Your task to perform on an android device: toggle notification dots Image 0: 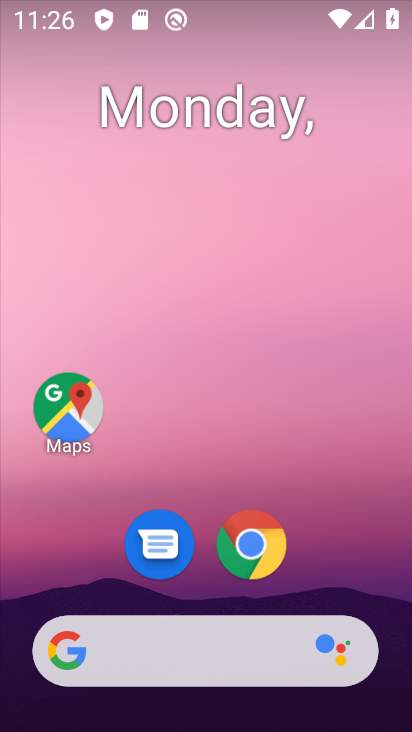
Step 0: drag from (317, 517) to (306, 187)
Your task to perform on an android device: toggle notification dots Image 1: 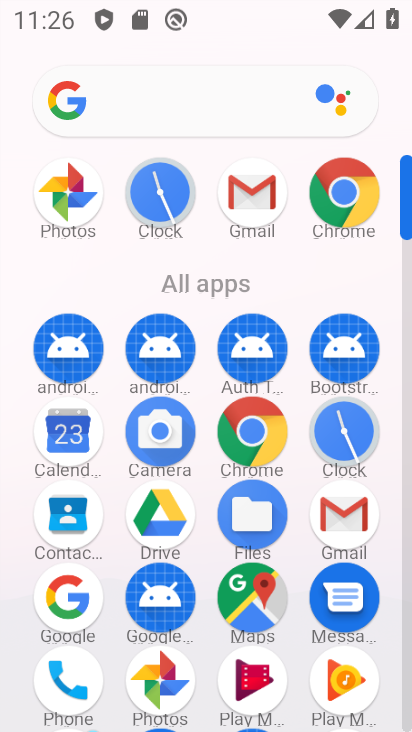
Step 1: drag from (197, 614) to (186, 267)
Your task to perform on an android device: toggle notification dots Image 2: 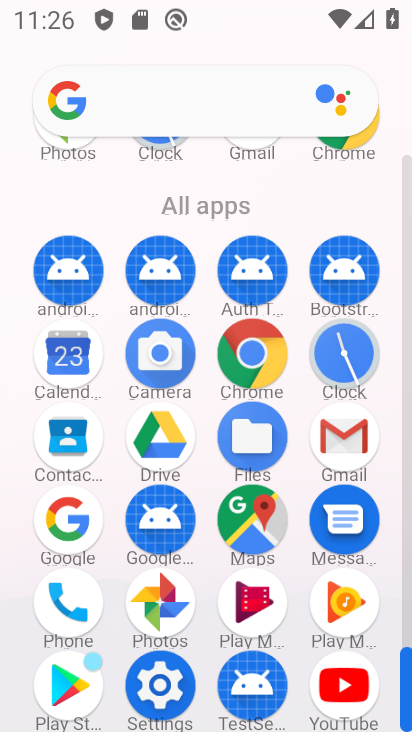
Step 2: click (154, 705)
Your task to perform on an android device: toggle notification dots Image 3: 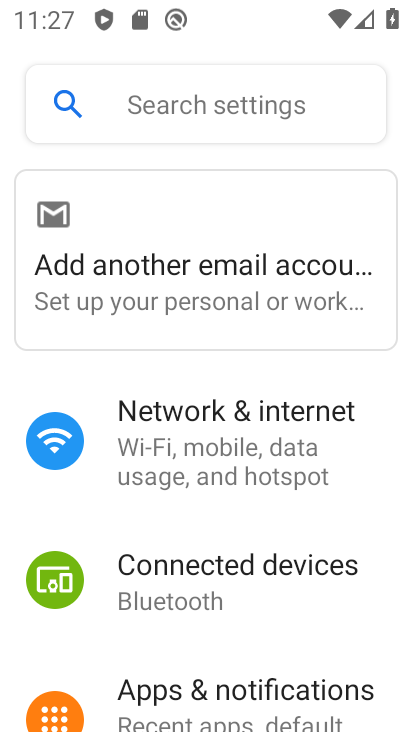
Step 3: click (226, 714)
Your task to perform on an android device: toggle notification dots Image 4: 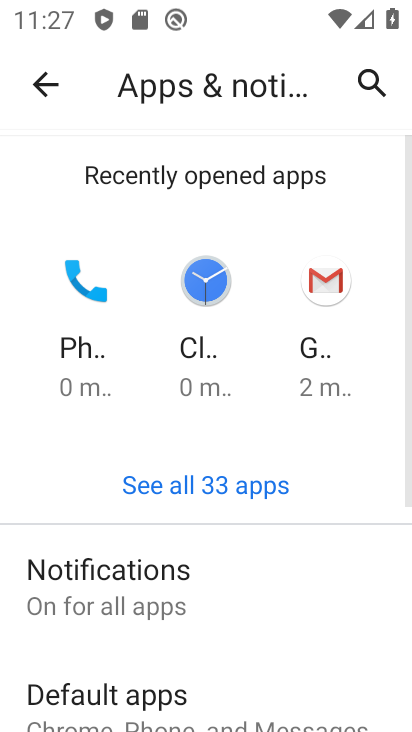
Step 4: drag from (267, 642) to (207, 164)
Your task to perform on an android device: toggle notification dots Image 5: 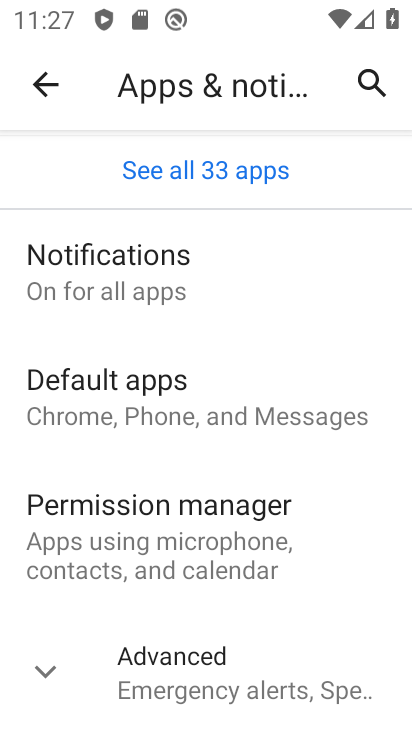
Step 5: click (208, 641)
Your task to perform on an android device: toggle notification dots Image 6: 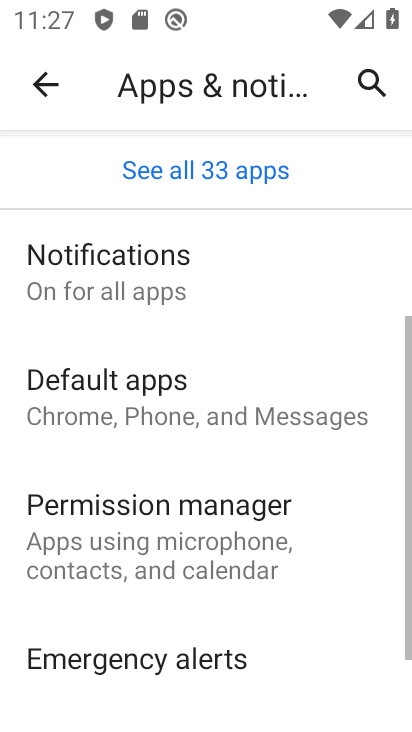
Step 6: drag from (209, 640) to (204, 345)
Your task to perform on an android device: toggle notification dots Image 7: 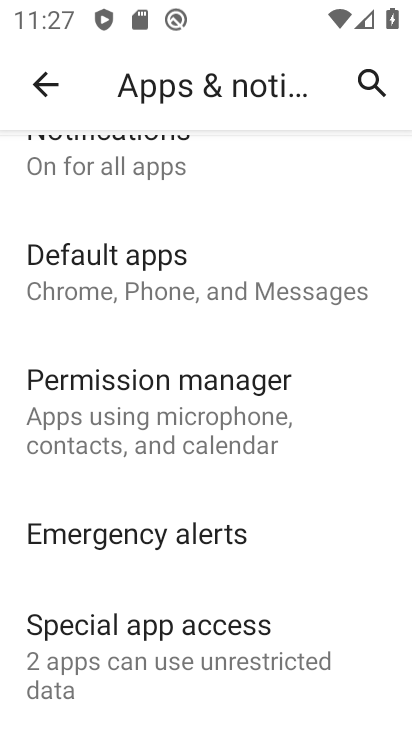
Step 7: drag from (183, 612) to (167, 394)
Your task to perform on an android device: toggle notification dots Image 8: 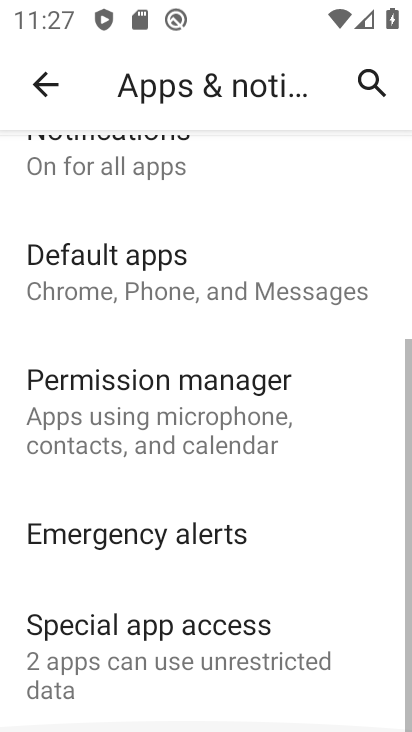
Step 8: drag from (275, 185) to (334, 580)
Your task to perform on an android device: toggle notification dots Image 9: 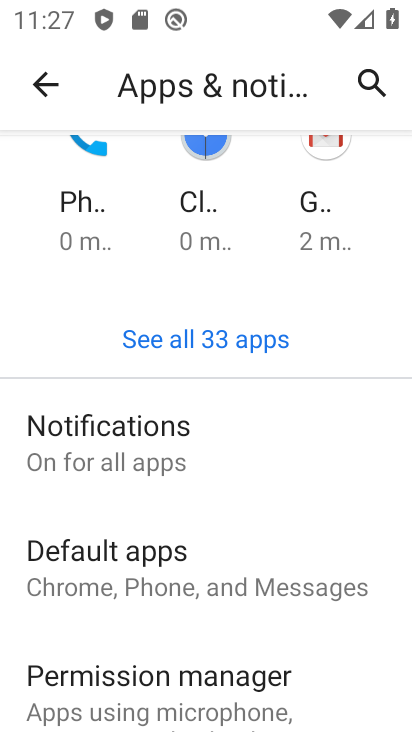
Step 9: click (131, 452)
Your task to perform on an android device: toggle notification dots Image 10: 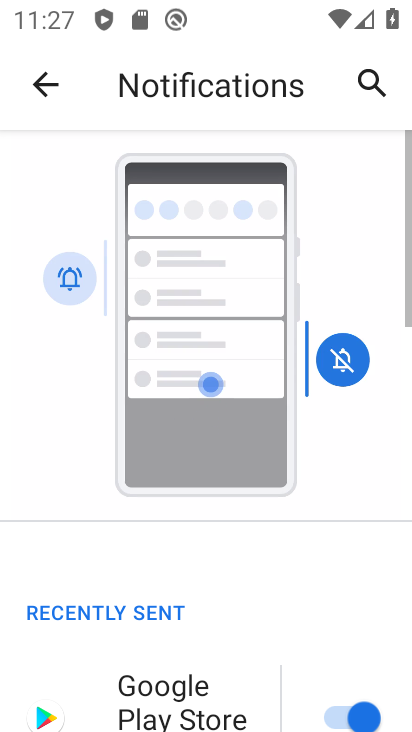
Step 10: drag from (119, 573) to (177, 241)
Your task to perform on an android device: toggle notification dots Image 11: 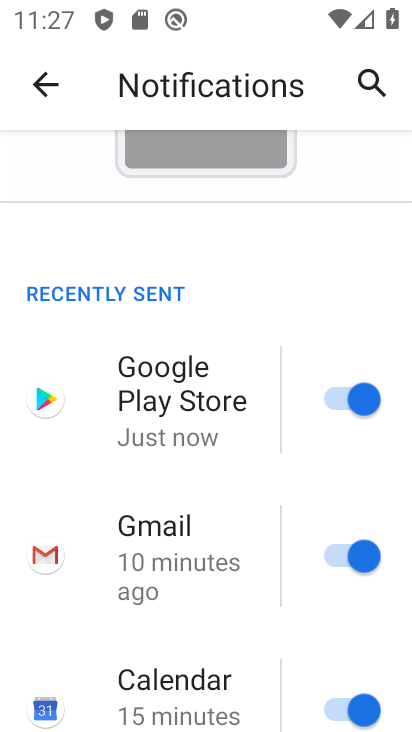
Step 11: drag from (193, 593) to (256, 165)
Your task to perform on an android device: toggle notification dots Image 12: 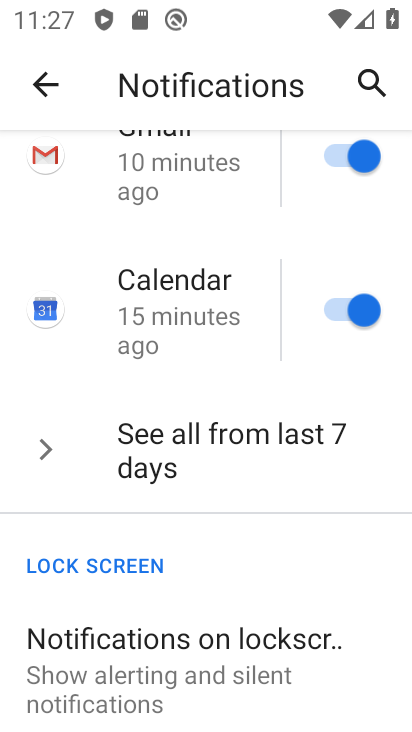
Step 12: drag from (140, 634) to (180, 323)
Your task to perform on an android device: toggle notification dots Image 13: 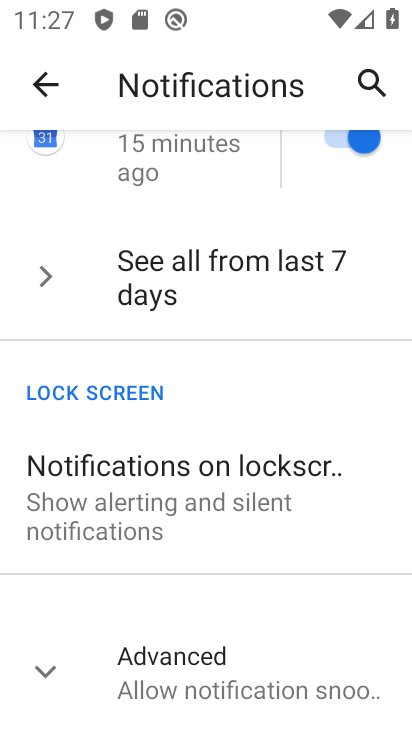
Step 13: click (180, 680)
Your task to perform on an android device: toggle notification dots Image 14: 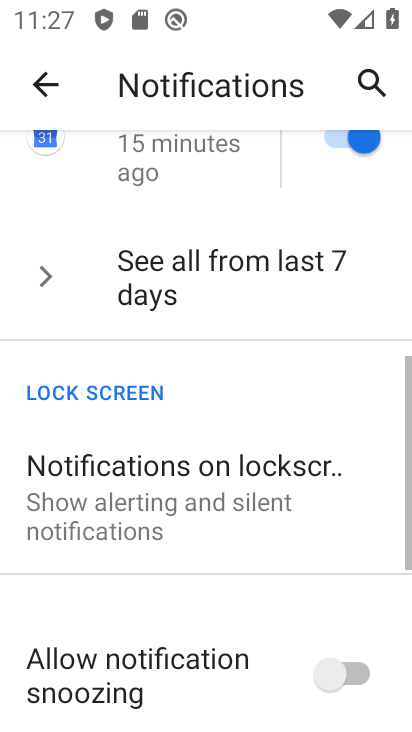
Step 14: drag from (181, 682) to (188, 373)
Your task to perform on an android device: toggle notification dots Image 15: 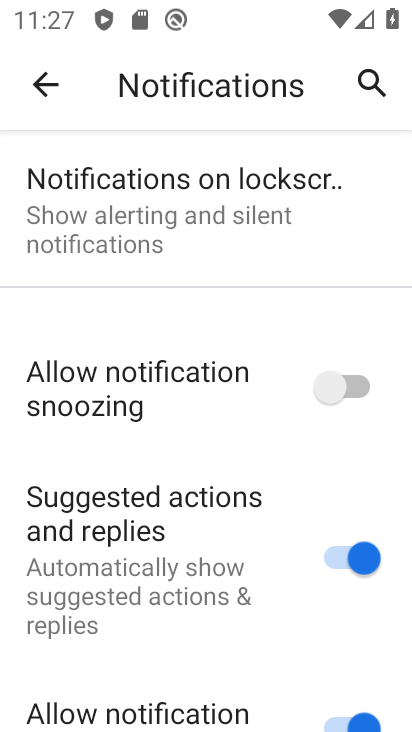
Step 15: drag from (153, 580) to (202, 345)
Your task to perform on an android device: toggle notification dots Image 16: 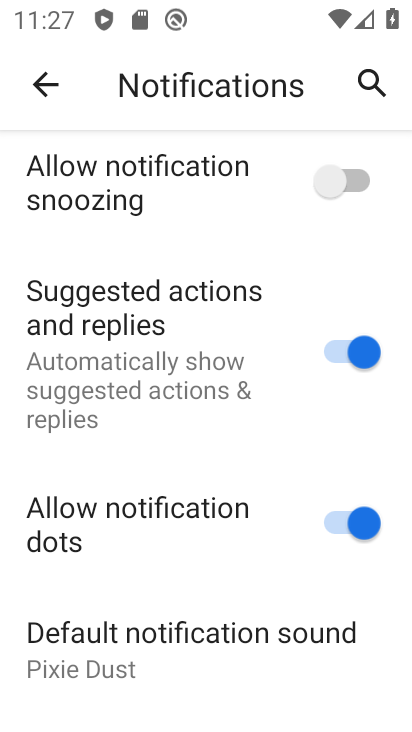
Step 16: drag from (160, 562) to (194, 318)
Your task to perform on an android device: toggle notification dots Image 17: 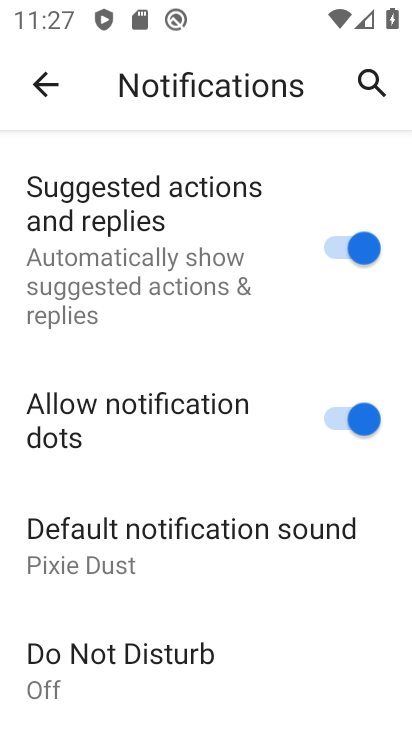
Step 17: click (353, 415)
Your task to perform on an android device: toggle notification dots Image 18: 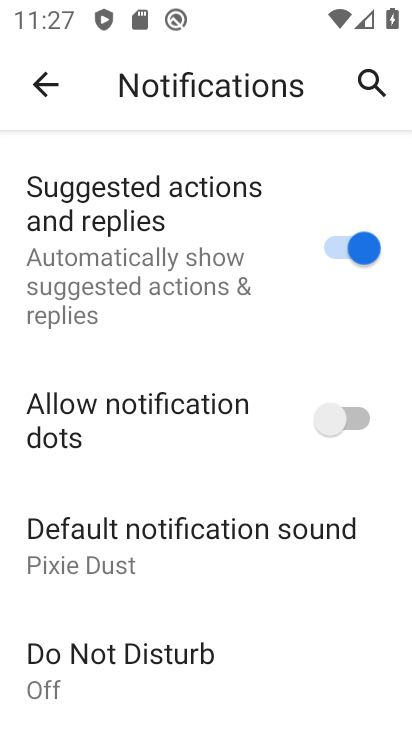
Step 18: task complete